Your task to perform on an android device: toggle data saver in the chrome app Image 0: 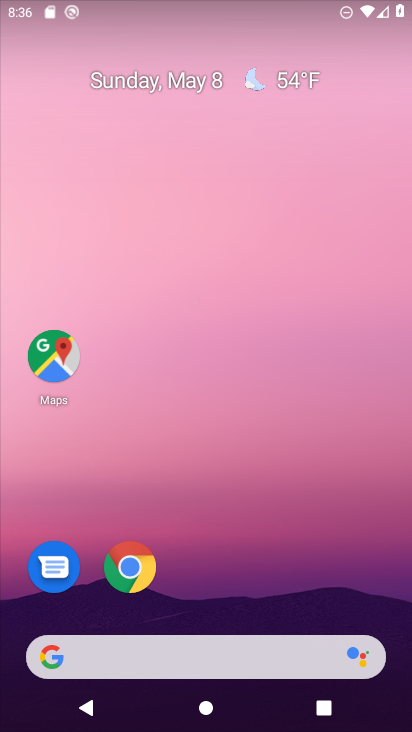
Step 0: drag from (272, 600) to (329, 97)
Your task to perform on an android device: toggle data saver in the chrome app Image 1: 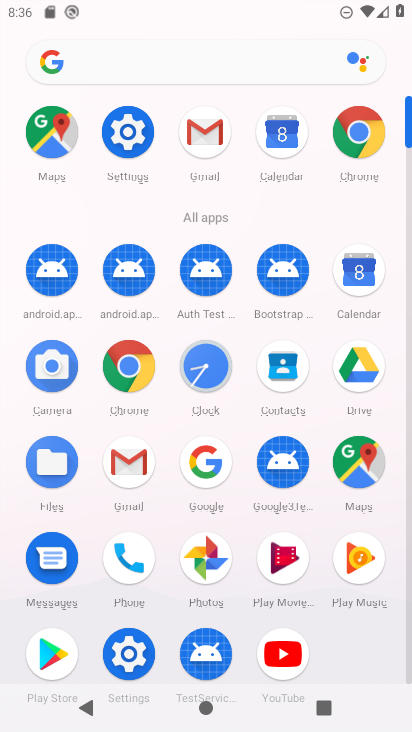
Step 1: click (357, 138)
Your task to perform on an android device: toggle data saver in the chrome app Image 2: 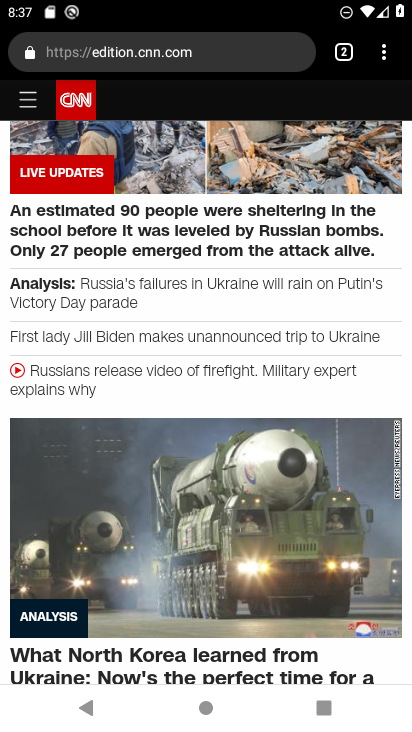
Step 2: drag from (388, 55) to (193, 592)
Your task to perform on an android device: toggle data saver in the chrome app Image 3: 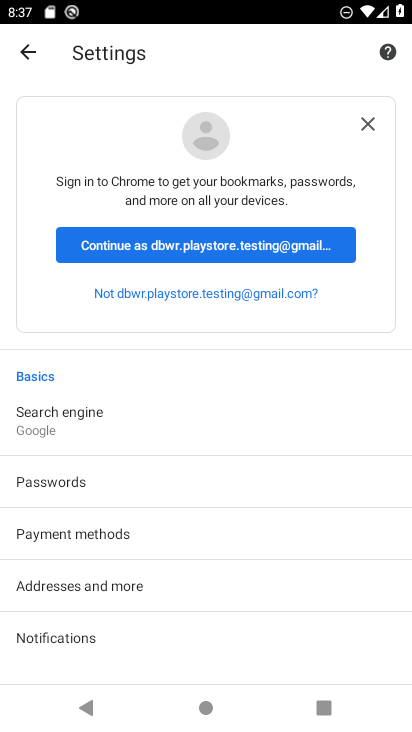
Step 3: drag from (202, 603) to (302, 289)
Your task to perform on an android device: toggle data saver in the chrome app Image 4: 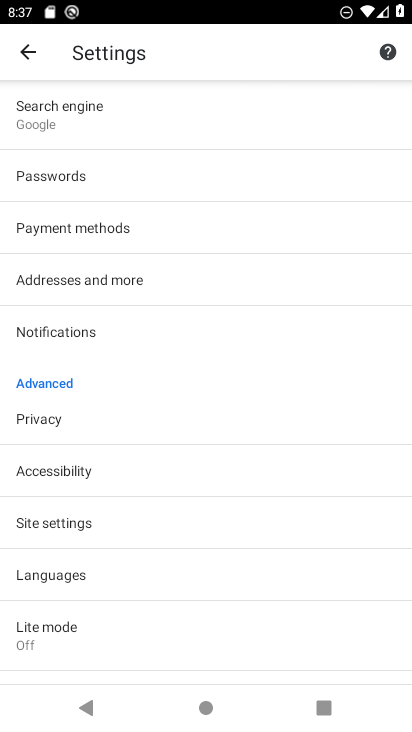
Step 4: drag from (237, 258) to (205, 586)
Your task to perform on an android device: toggle data saver in the chrome app Image 5: 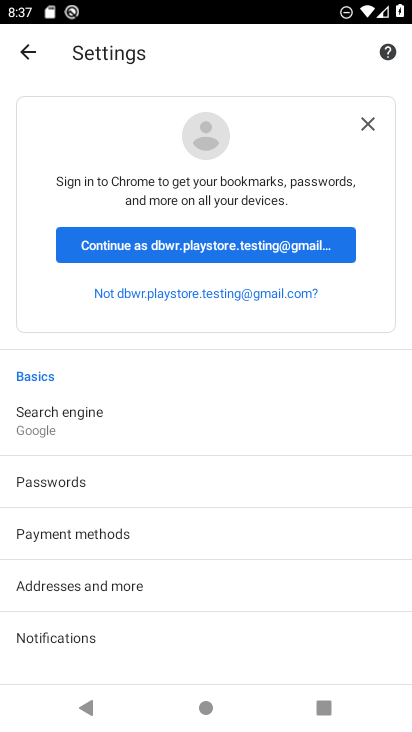
Step 5: drag from (219, 591) to (311, 154)
Your task to perform on an android device: toggle data saver in the chrome app Image 6: 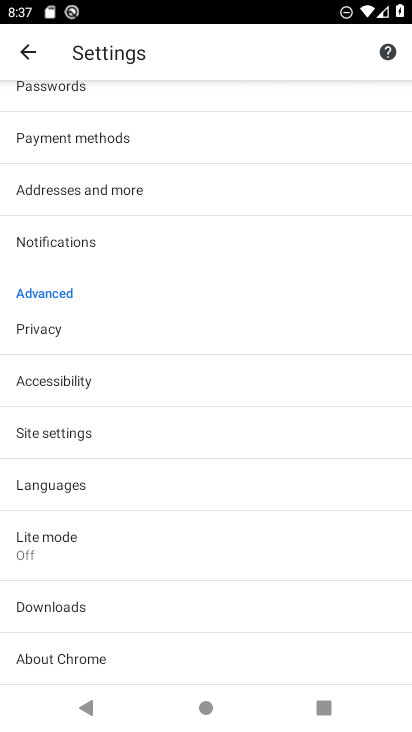
Step 6: drag from (150, 611) to (236, 328)
Your task to perform on an android device: toggle data saver in the chrome app Image 7: 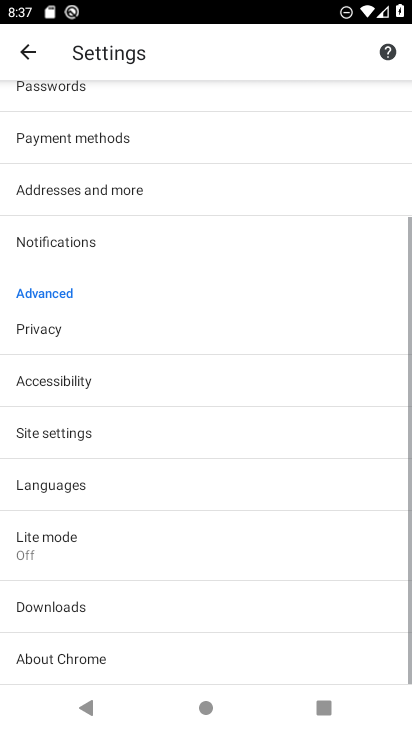
Step 7: click (43, 547)
Your task to perform on an android device: toggle data saver in the chrome app Image 8: 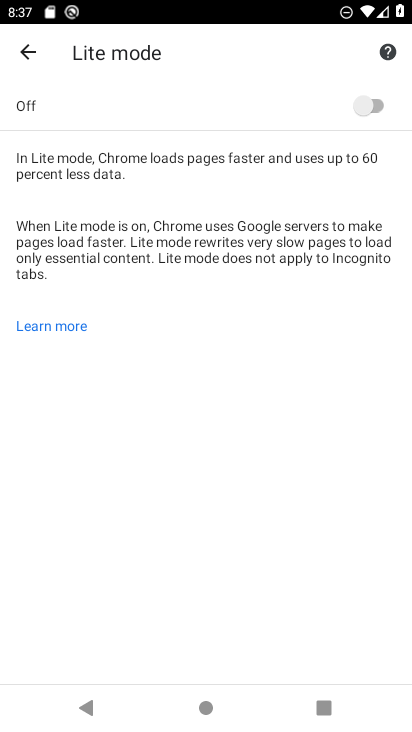
Step 8: click (370, 96)
Your task to perform on an android device: toggle data saver in the chrome app Image 9: 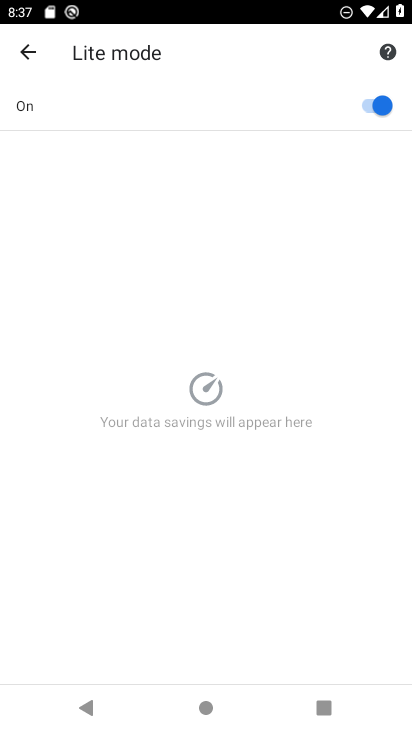
Step 9: task complete